Your task to perform on an android device: check storage Image 0: 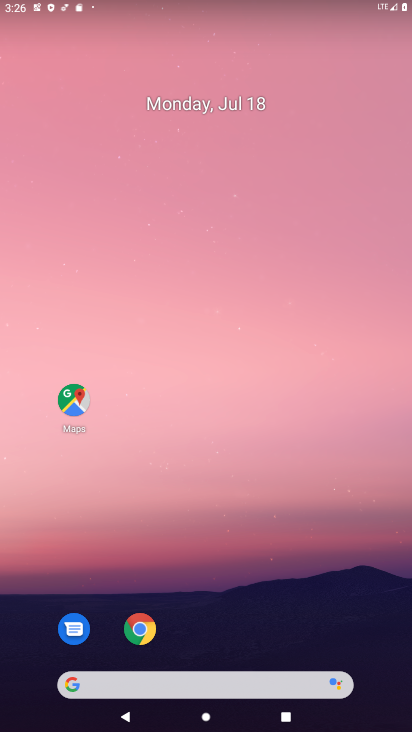
Step 0: drag from (224, 453) to (131, 19)
Your task to perform on an android device: check storage Image 1: 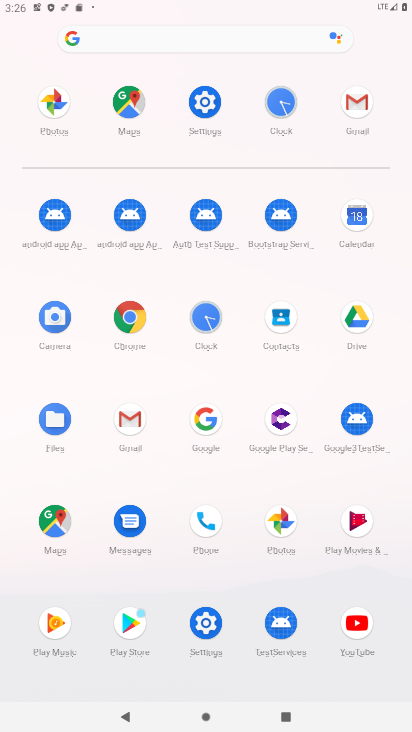
Step 1: click (214, 124)
Your task to perform on an android device: check storage Image 2: 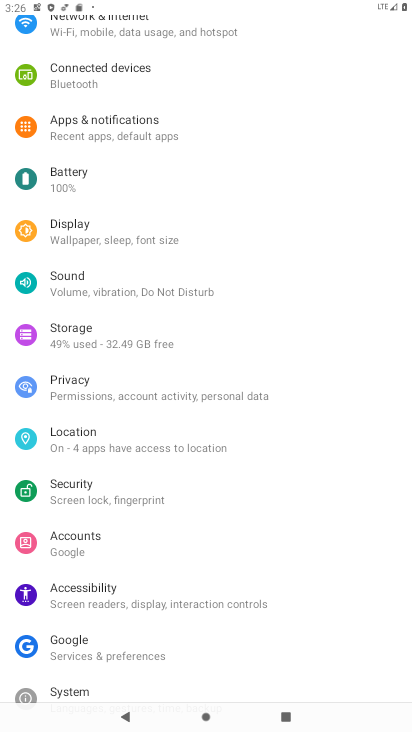
Step 2: click (109, 344)
Your task to perform on an android device: check storage Image 3: 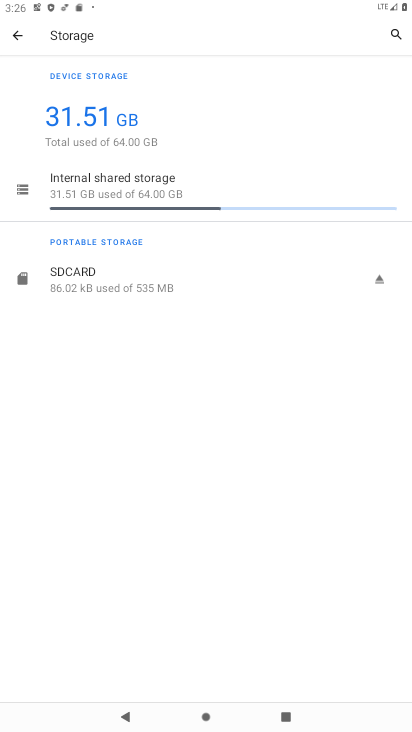
Step 3: task complete